Your task to perform on an android device: turn notification dots off Image 0: 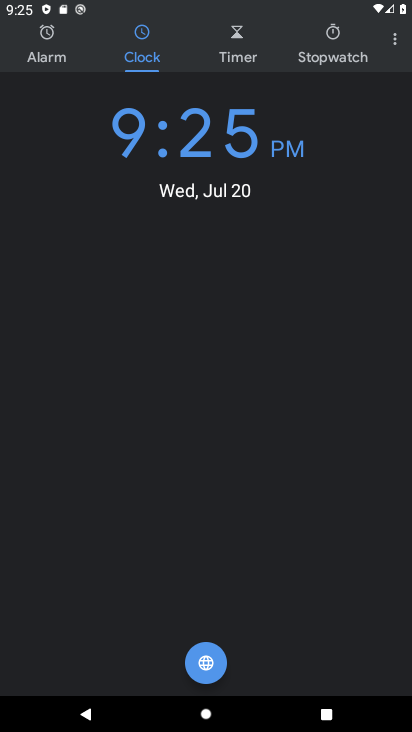
Step 0: press back button
Your task to perform on an android device: turn notification dots off Image 1: 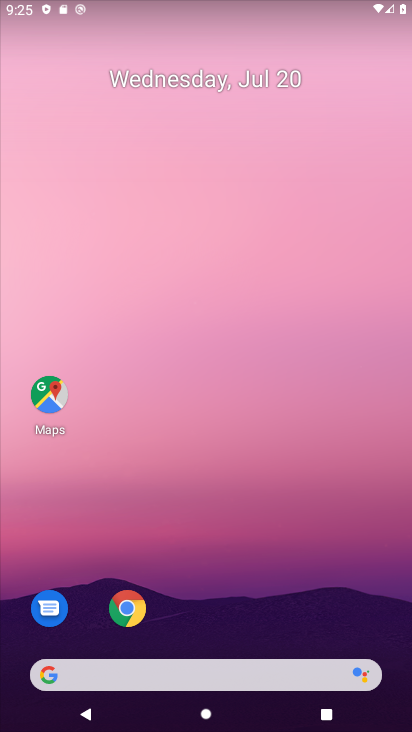
Step 1: drag from (260, 623) to (226, 52)
Your task to perform on an android device: turn notification dots off Image 2: 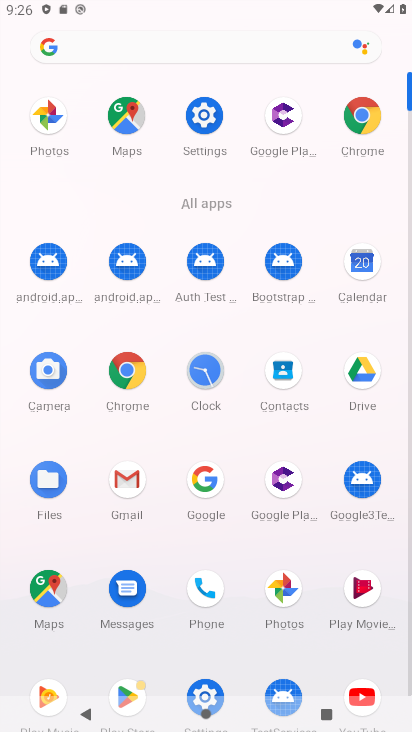
Step 2: click (187, 120)
Your task to perform on an android device: turn notification dots off Image 3: 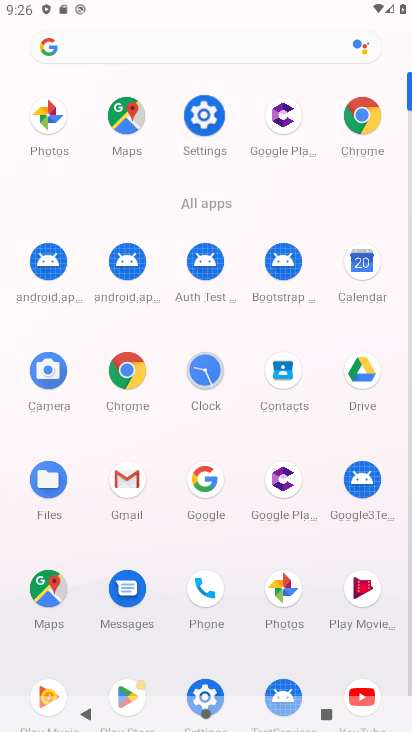
Step 3: click (199, 106)
Your task to perform on an android device: turn notification dots off Image 4: 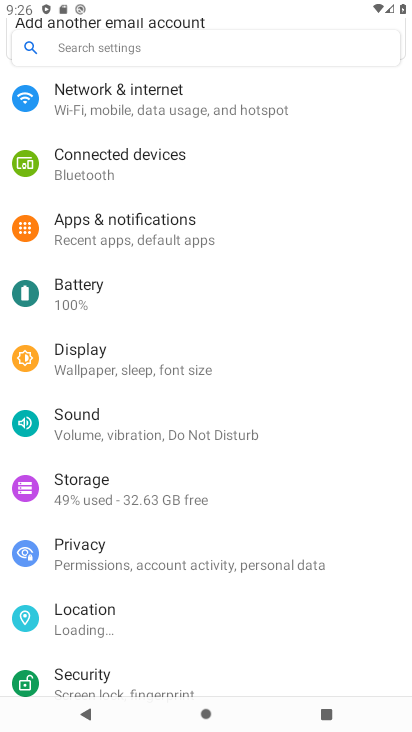
Step 4: click (103, 210)
Your task to perform on an android device: turn notification dots off Image 5: 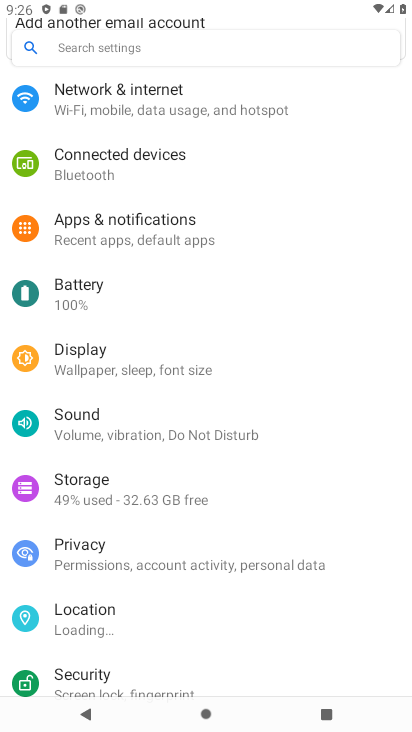
Step 5: click (105, 213)
Your task to perform on an android device: turn notification dots off Image 6: 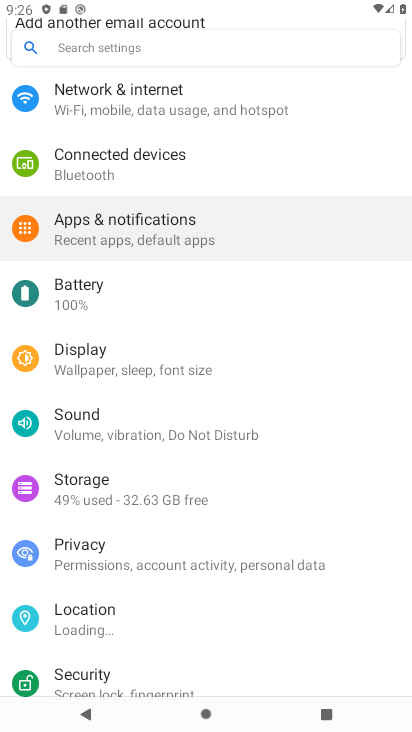
Step 6: click (106, 215)
Your task to perform on an android device: turn notification dots off Image 7: 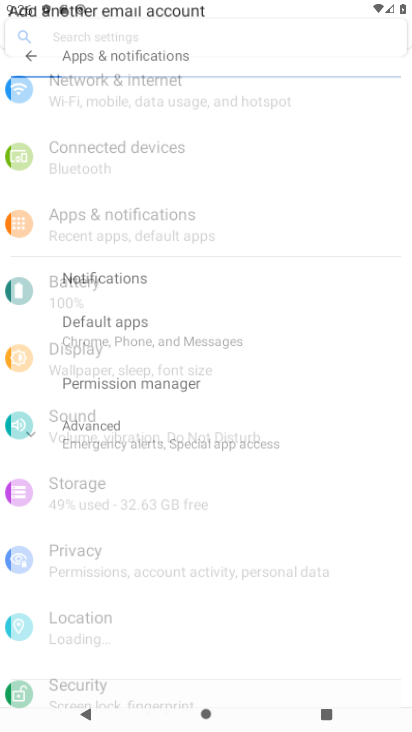
Step 7: click (111, 215)
Your task to perform on an android device: turn notification dots off Image 8: 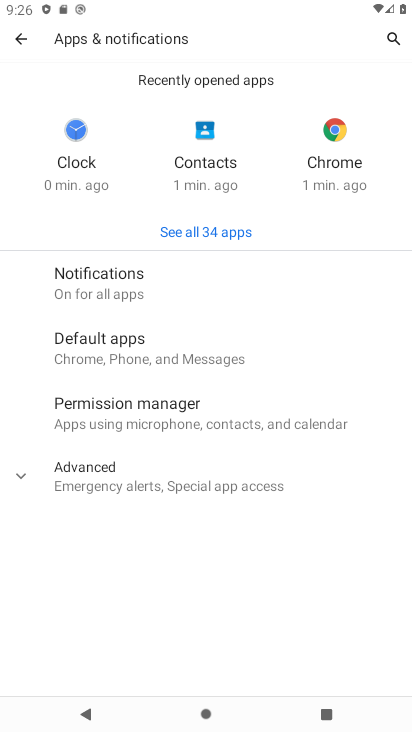
Step 8: click (102, 292)
Your task to perform on an android device: turn notification dots off Image 9: 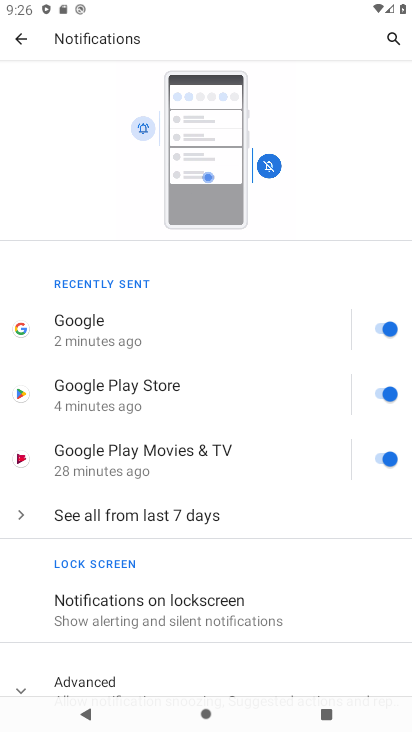
Step 9: drag from (203, 586) to (198, 276)
Your task to perform on an android device: turn notification dots off Image 10: 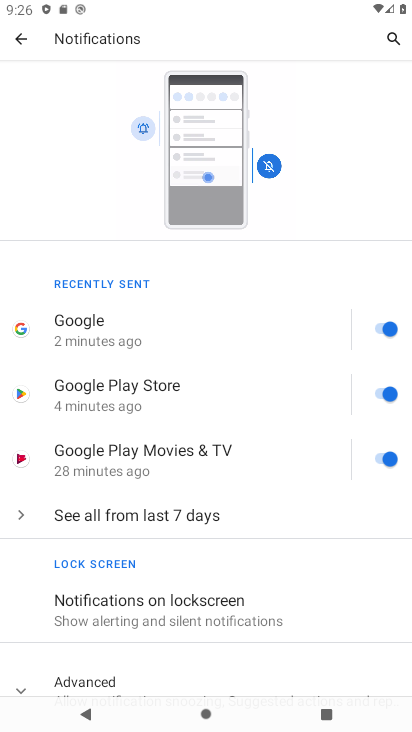
Step 10: drag from (160, 523) to (136, 232)
Your task to perform on an android device: turn notification dots off Image 11: 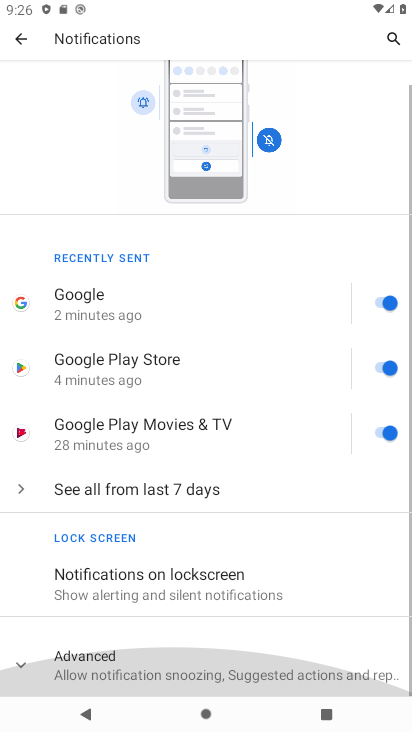
Step 11: drag from (154, 511) to (195, 295)
Your task to perform on an android device: turn notification dots off Image 12: 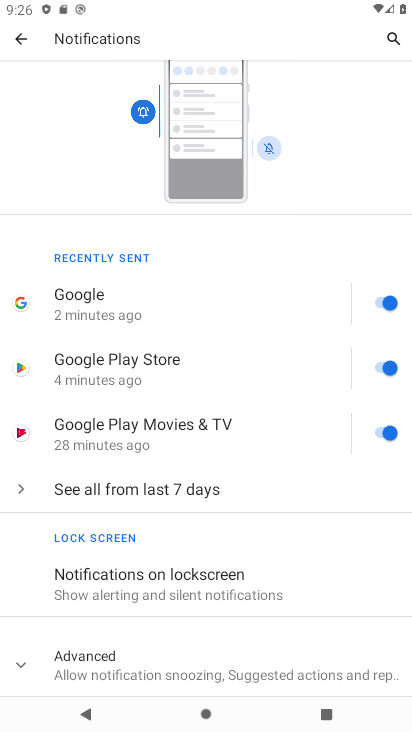
Step 12: click (125, 668)
Your task to perform on an android device: turn notification dots off Image 13: 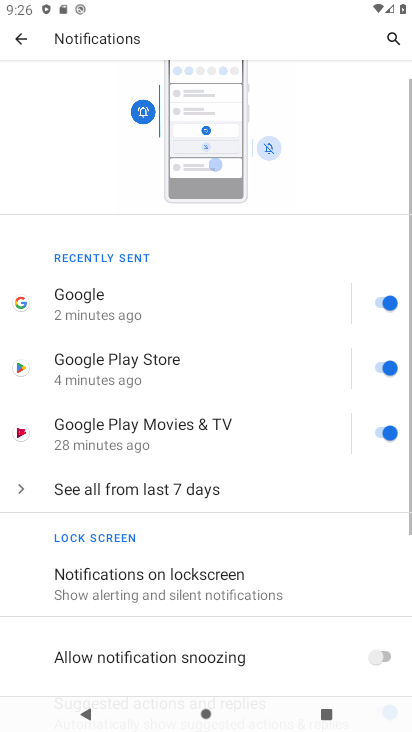
Step 13: drag from (240, 542) to (267, 211)
Your task to perform on an android device: turn notification dots off Image 14: 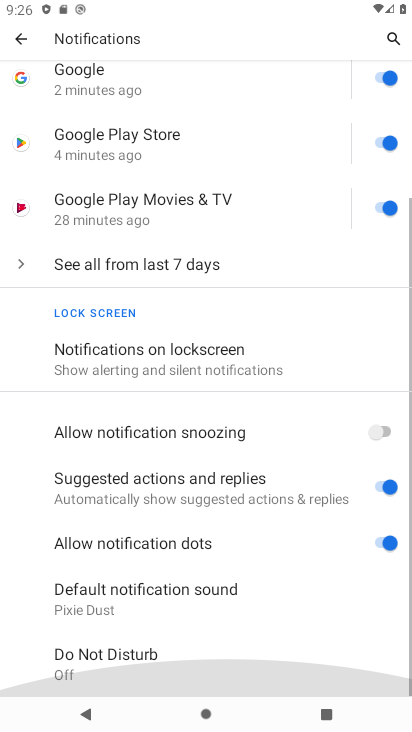
Step 14: drag from (217, 457) to (218, 239)
Your task to perform on an android device: turn notification dots off Image 15: 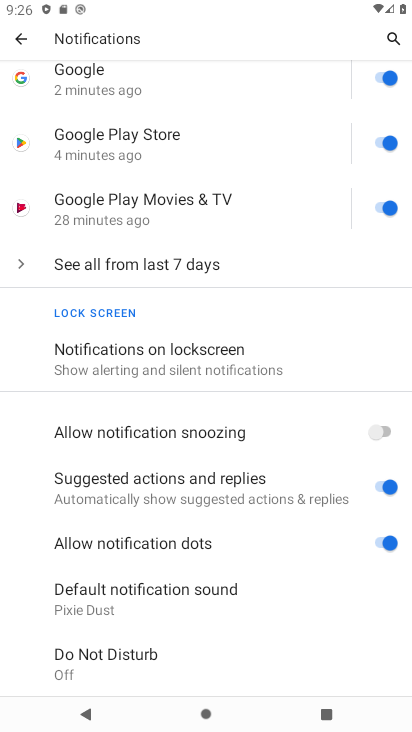
Step 15: click (377, 539)
Your task to perform on an android device: turn notification dots off Image 16: 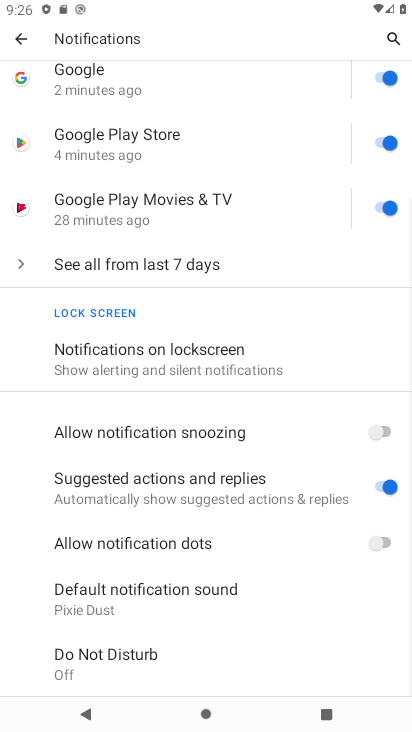
Step 16: task complete